Your task to perform on an android device: turn off smart reply in the gmail app Image 0: 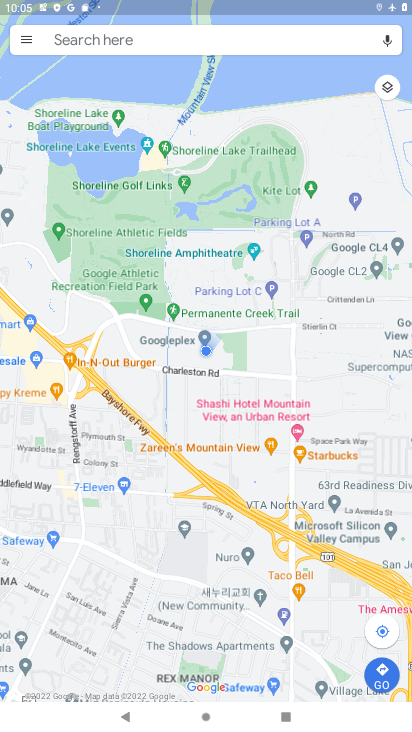
Step 0: click (34, 47)
Your task to perform on an android device: turn off smart reply in the gmail app Image 1: 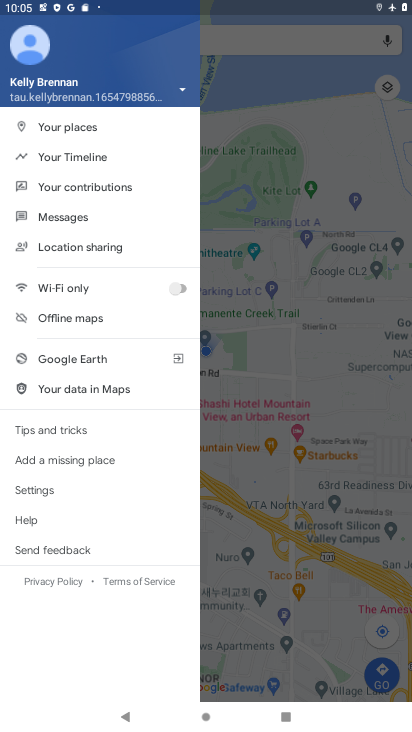
Step 1: click (94, 487)
Your task to perform on an android device: turn off smart reply in the gmail app Image 2: 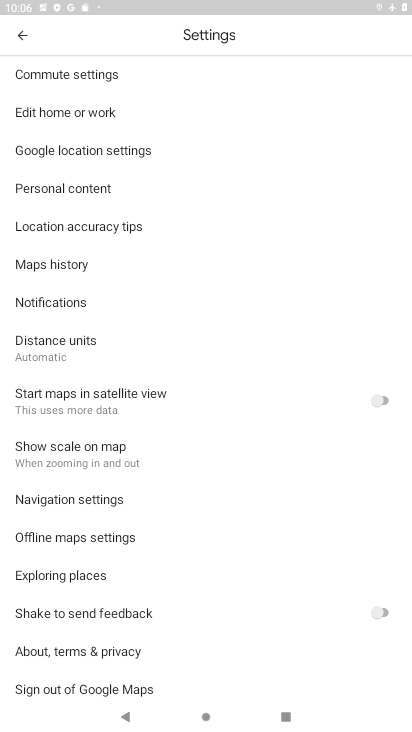
Step 2: click (35, 41)
Your task to perform on an android device: turn off smart reply in the gmail app Image 3: 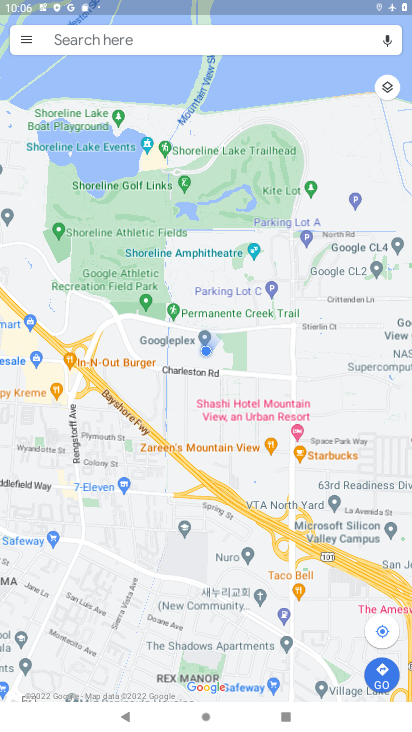
Step 3: task complete